Your task to perform on an android device: check storage Image 0: 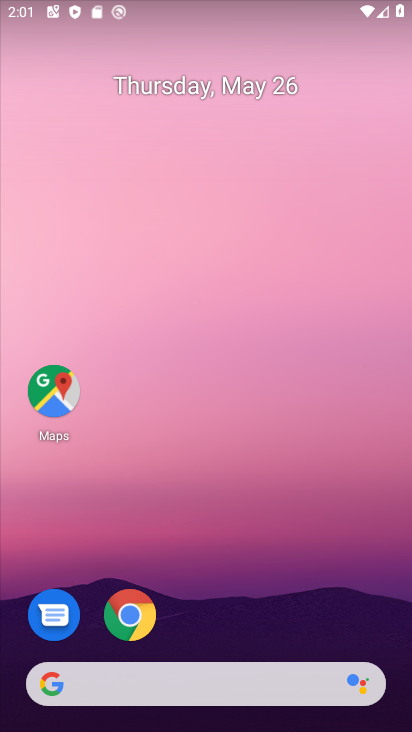
Step 0: drag from (216, 643) to (234, 146)
Your task to perform on an android device: check storage Image 1: 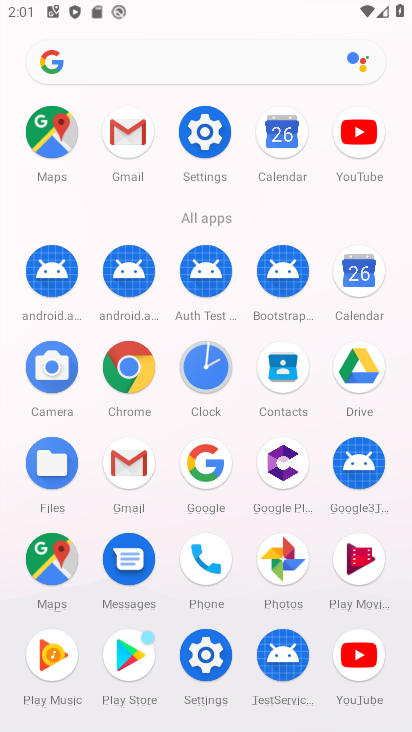
Step 1: click (202, 123)
Your task to perform on an android device: check storage Image 2: 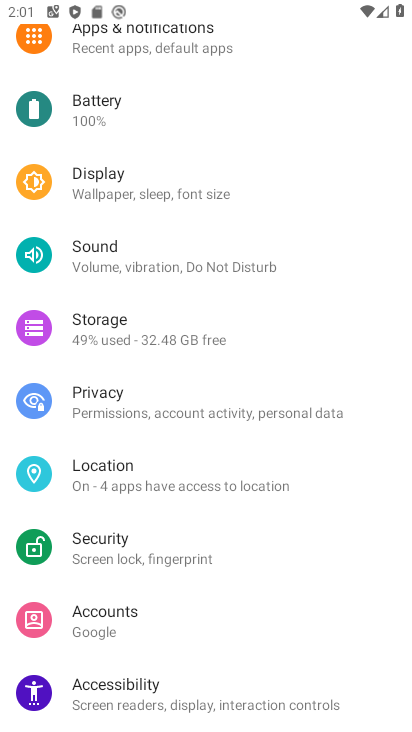
Step 2: click (139, 318)
Your task to perform on an android device: check storage Image 3: 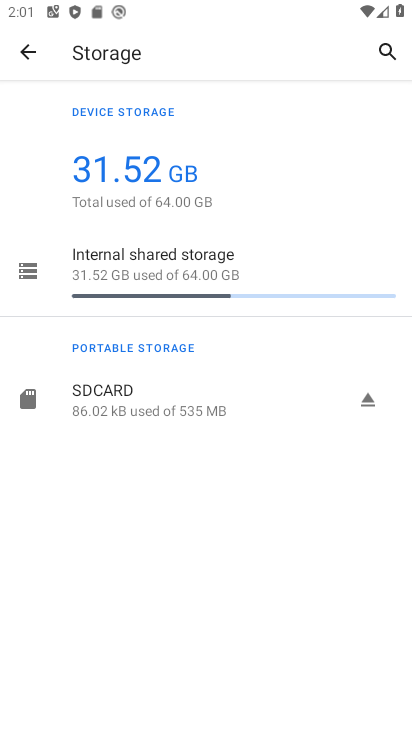
Step 3: task complete